Your task to perform on an android device: Open privacy settings Image 0: 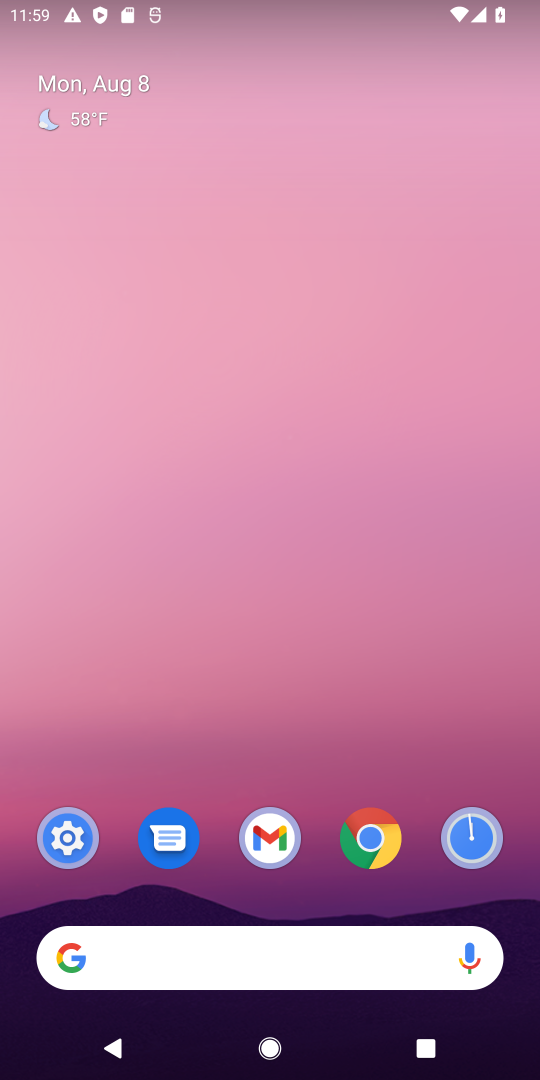
Step 0: press home button
Your task to perform on an android device: Open privacy settings Image 1: 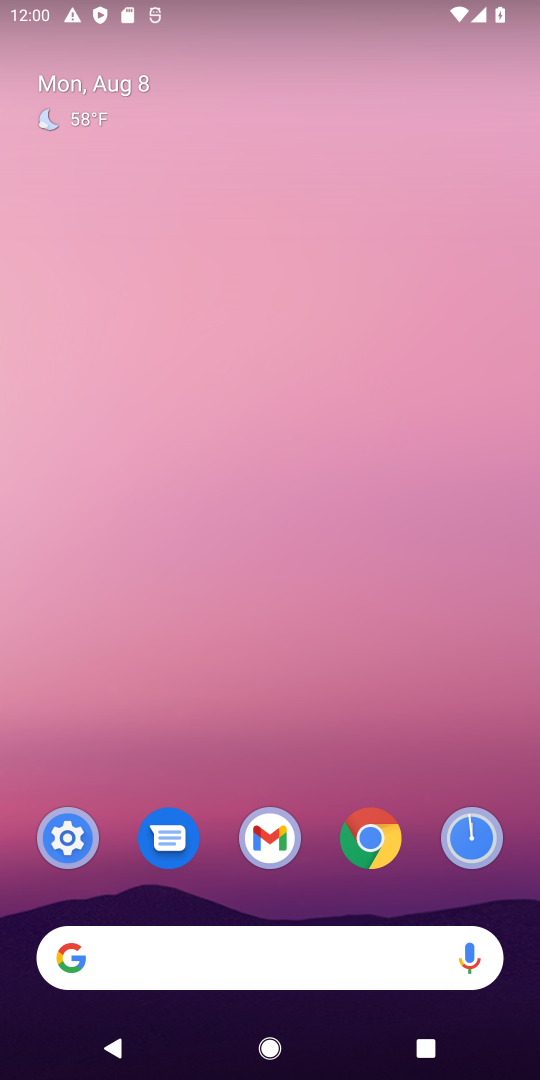
Step 1: click (56, 833)
Your task to perform on an android device: Open privacy settings Image 2: 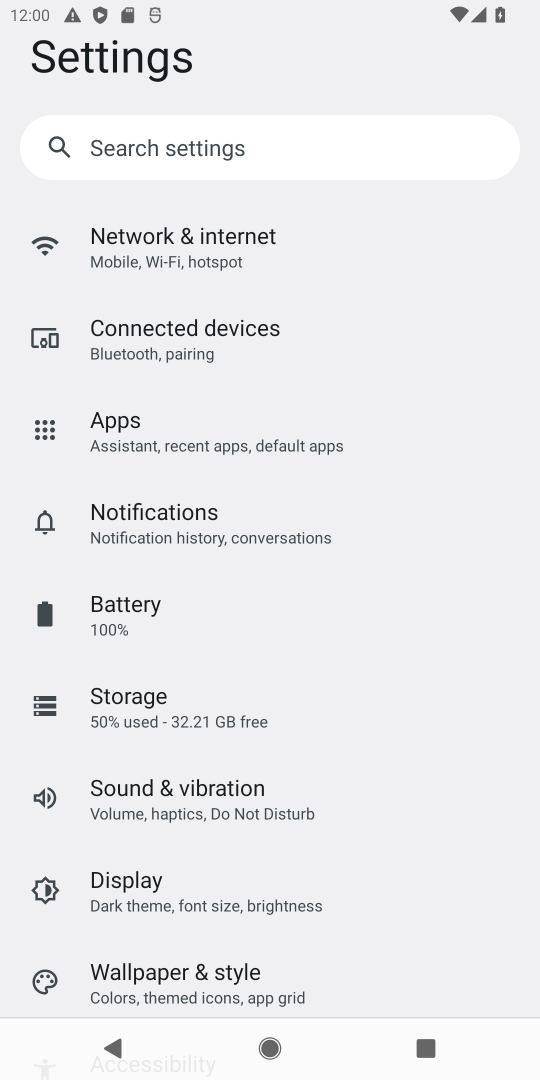
Step 2: drag from (431, 820) to (472, 358)
Your task to perform on an android device: Open privacy settings Image 3: 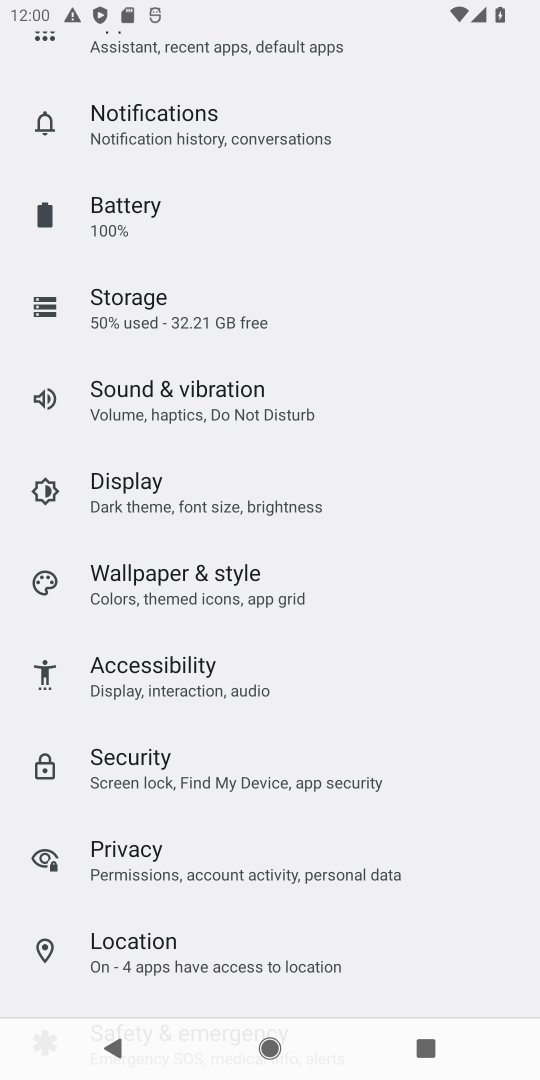
Step 3: click (124, 863)
Your task to perform on an android device: Open privacy settings Image 4: 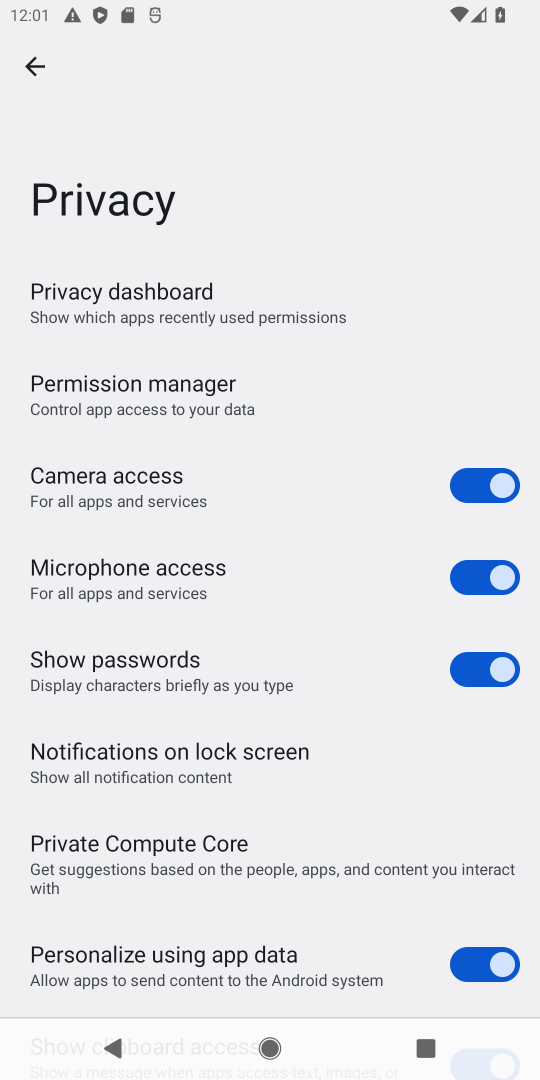
Step 4: task complete